Your task to perform on an android device: Go to battery settings Image 0: 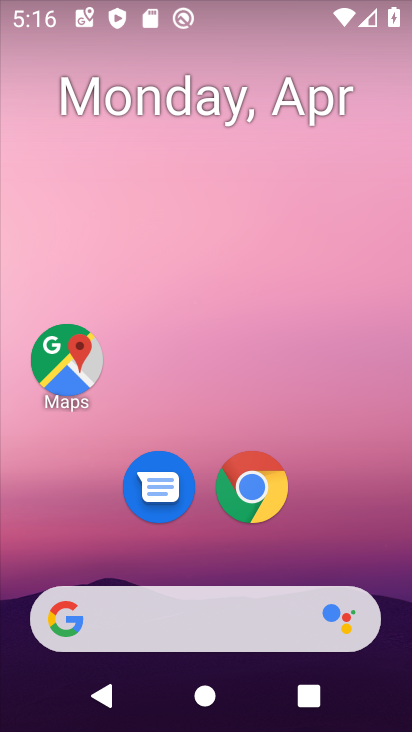
Step 0: drag from (379, 524) to (357, 116)
Your task to perform on an android device: Go to battery settings Image 1: 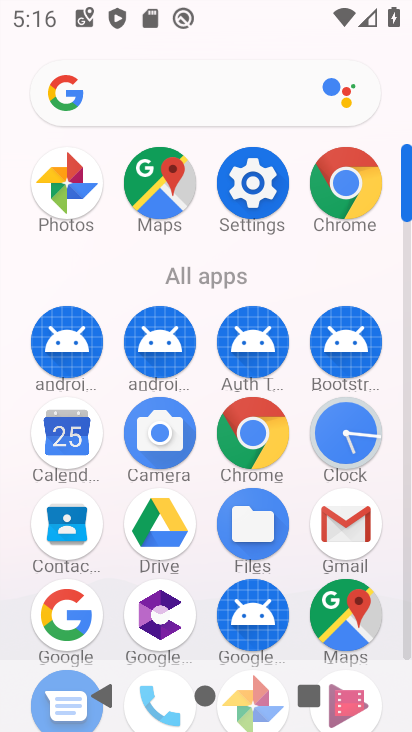
Step 1: click (260, 187)
Your task to perform on an android device: Go to battery settings Image 2: 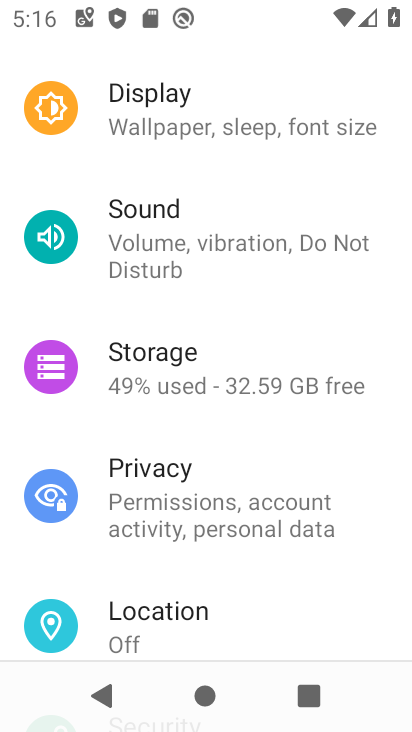
Step 2: drag from (321, 591) to (256, 724)
Your task to perform on an android device: Go to battery settings Image 3: 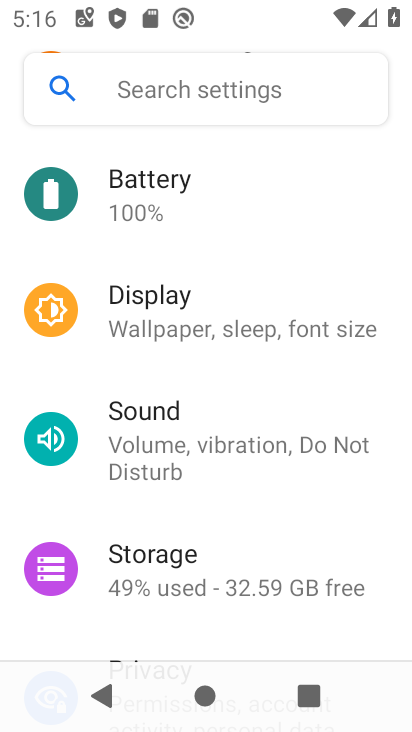
Step 3: drag from (257, 244) to (224, 505)
Your task to perform on an android device: Go to battery settings Image 4: 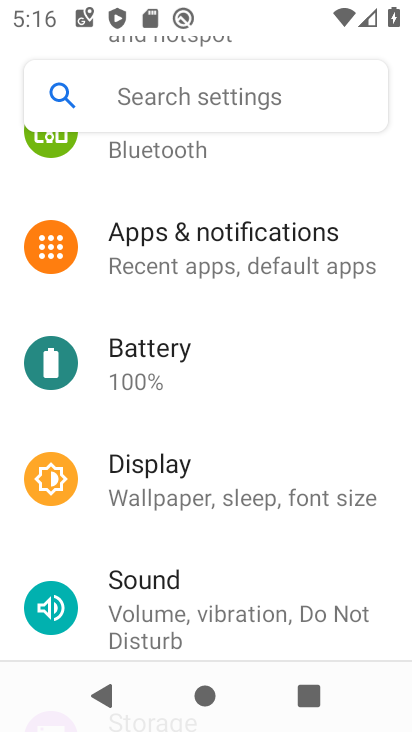
Step 4: click (179, 377)
Your task to perform on an android device: Go to battery settings Image 5: 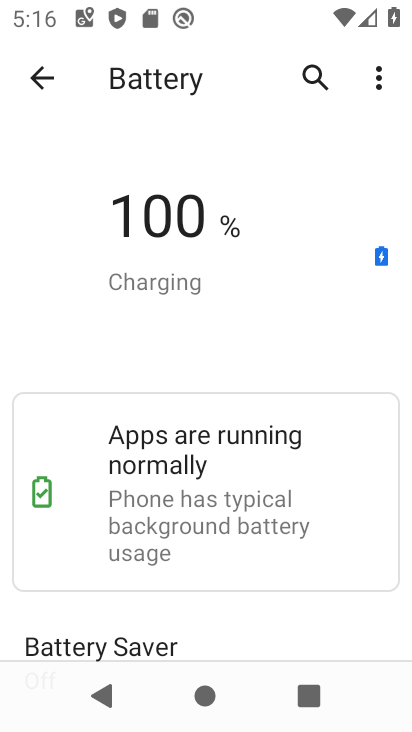
Step 5: task complete